Your task to perform on an android device: see sites visited before in the chrome app Image 0: 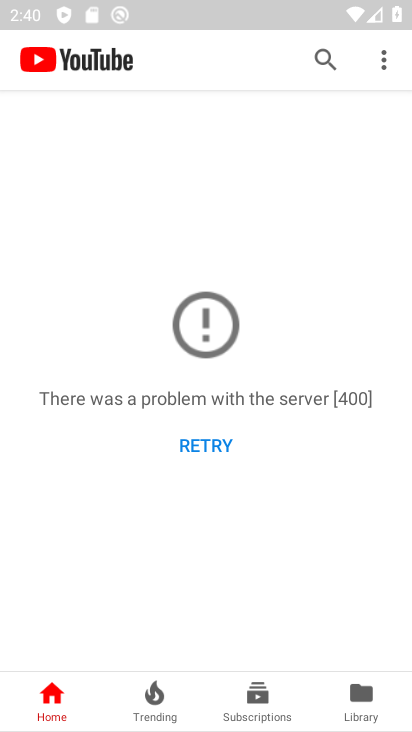
Step 0: press home button
Your task to perform on an android device: see sites visited before in the chrome app Image 1: 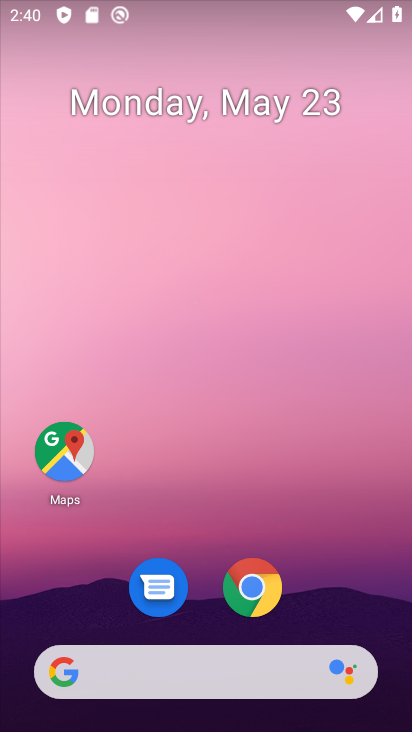
Step 1: click (251, 589)
Your task to perform on an android device: see sites visited before in the chrome app Image 2: 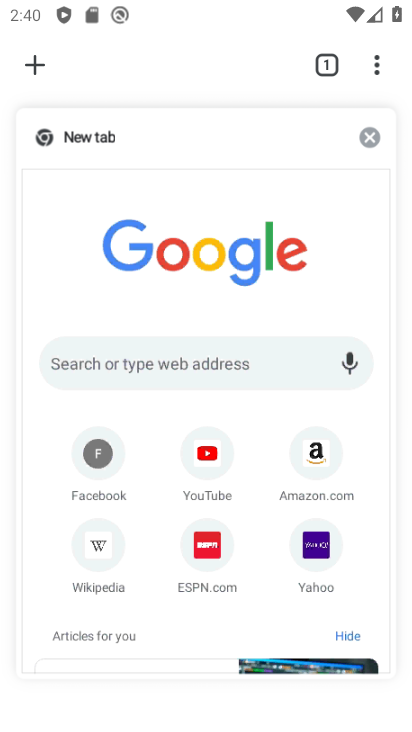
Step 2: click (308, 70)
Your task to perform on an android device: see sites visited before in the chrome app Image 3: 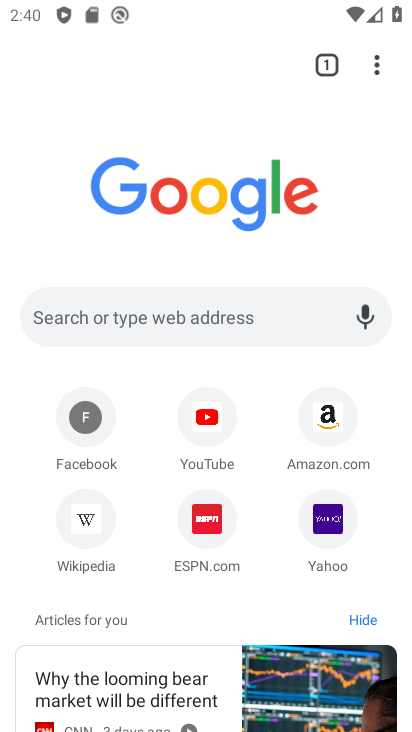
Step 3: click (378, 72)
Your task to perform on an android device: see sites visited before in the chrome app Image 4: 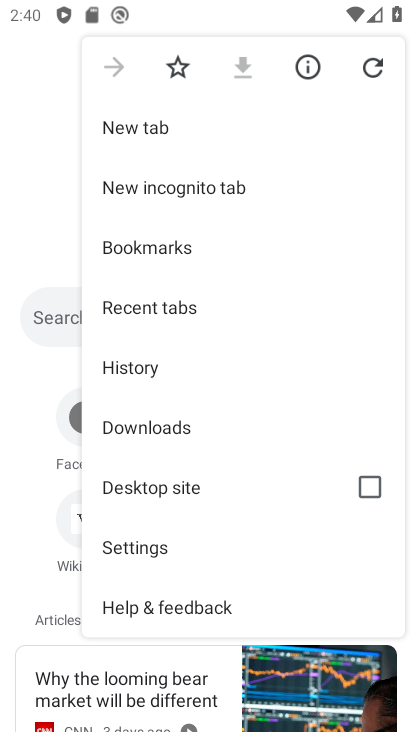
Step 4: click (160, 318)
Your task to perform on an android device: see sites visited before in the chrome app Image 5: 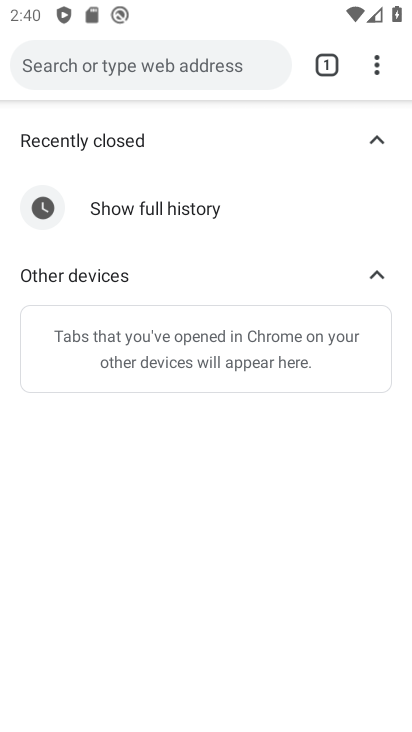
Step 5: task complete